Your task to perform on an android device: Open notification settings Image 0: 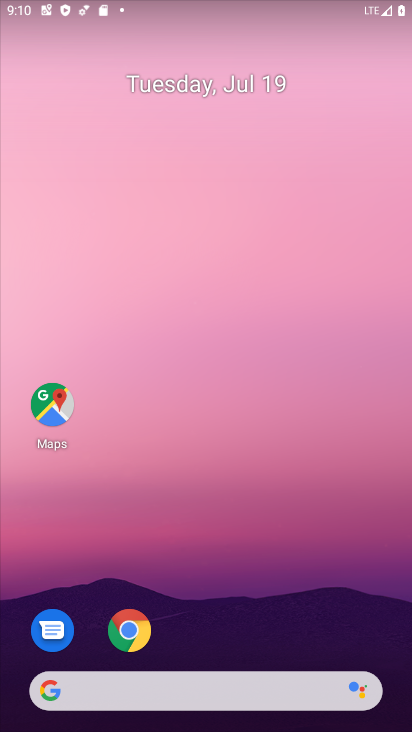
Step 0: drag from (221, 664) to (258, 69)
Your task to perform on an android device: Open notification settings Image 1: 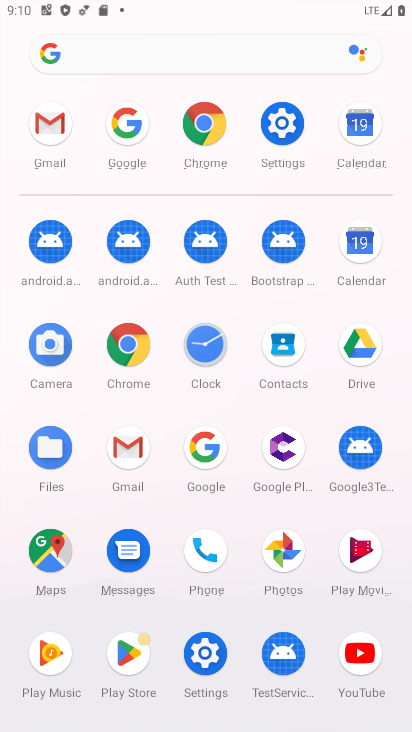
Step 1: click (283, 119)
Your task to perform on an android device: Open notification settings Image 2: 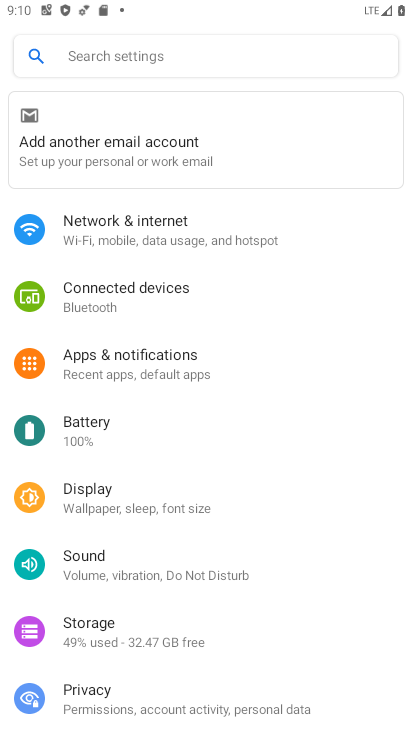
Step 2: click (145, 375)
Your task to perform on an android device: Open notification settings Image 3: 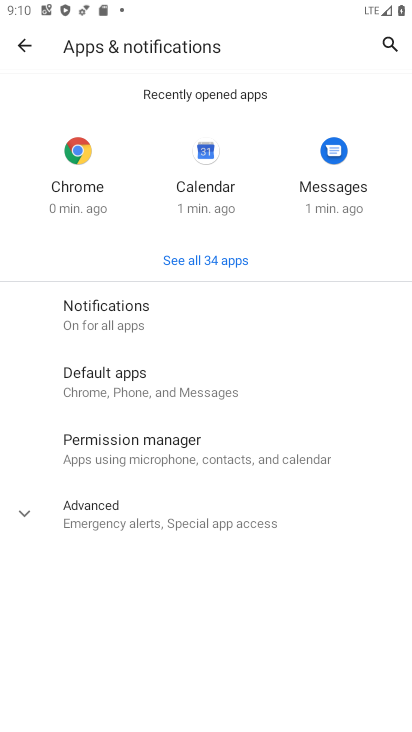
Step 3: click (112, 314)
Your task to perform on an android device: Open notification settings Image 4: 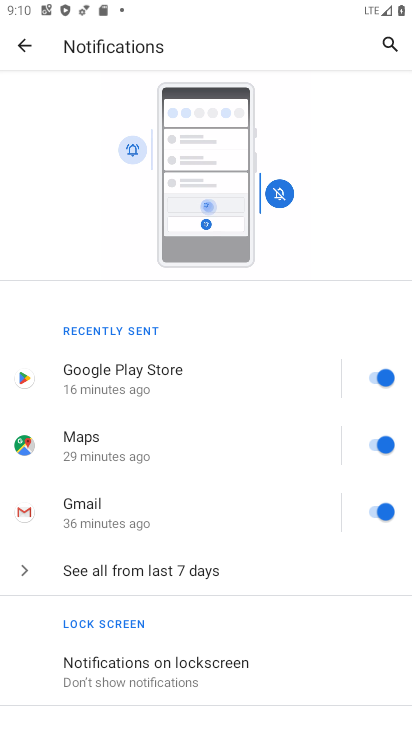
Step 4: task complete